Your task to perform on an android device: Go to wifi settings Image 0: 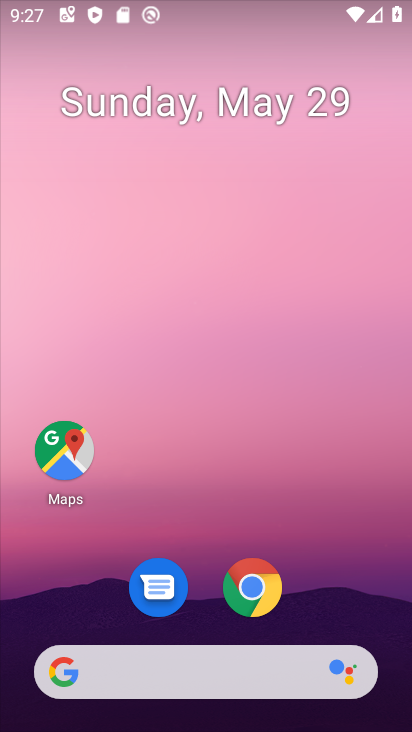
Step 0: drag from (146, 6) to (175, 560)
Your task to perform on an android device: Go to wifi settings Image 1: 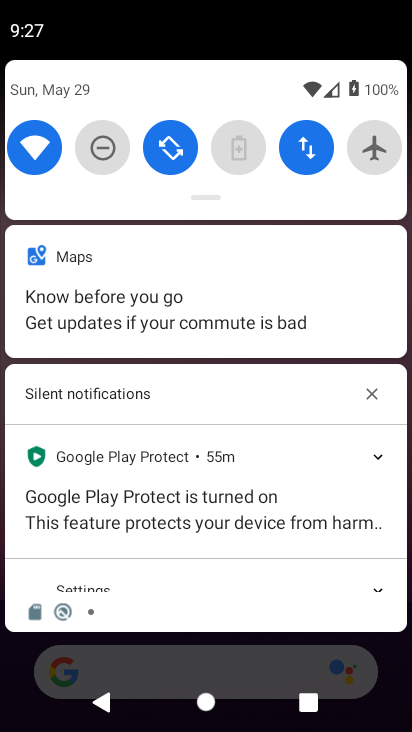
Step 1: click (30, 147)
Your task to perform on an android device: Go to wifi settings Image 2: 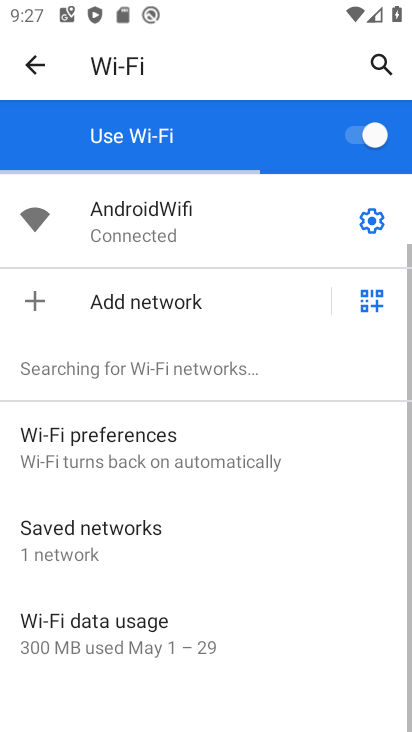
Step 2: task complete